Your task to perform on an android device: open app "ColorNote Notepad Notes" (install if not already installed) and go to login screen Image 0: 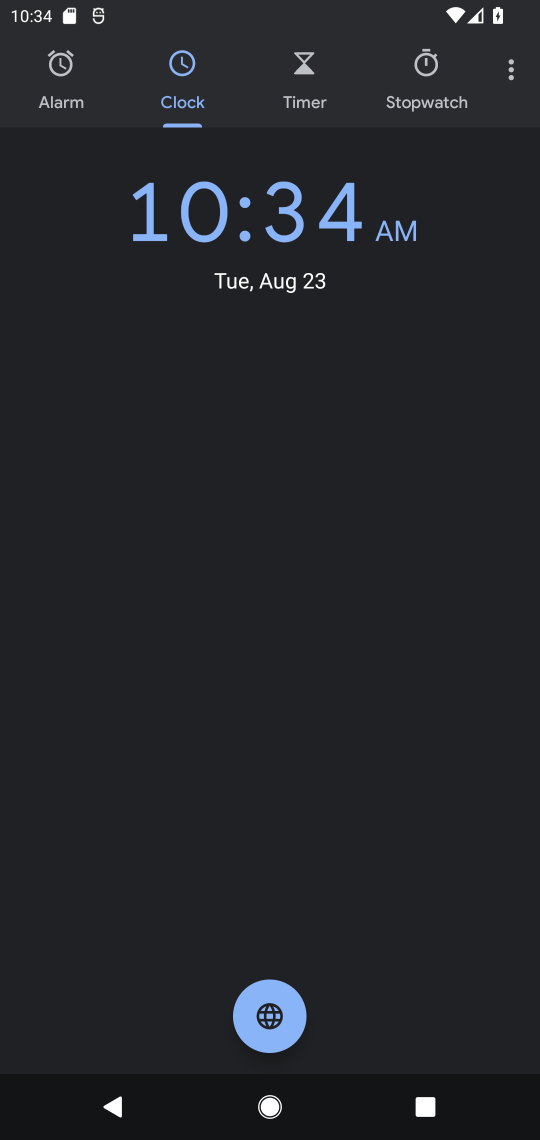
Step 0: press home button
Your task to perform on an android device: open app "ColorNote Notepad Notes" (install if not already installed) and go to login screen Image 1: 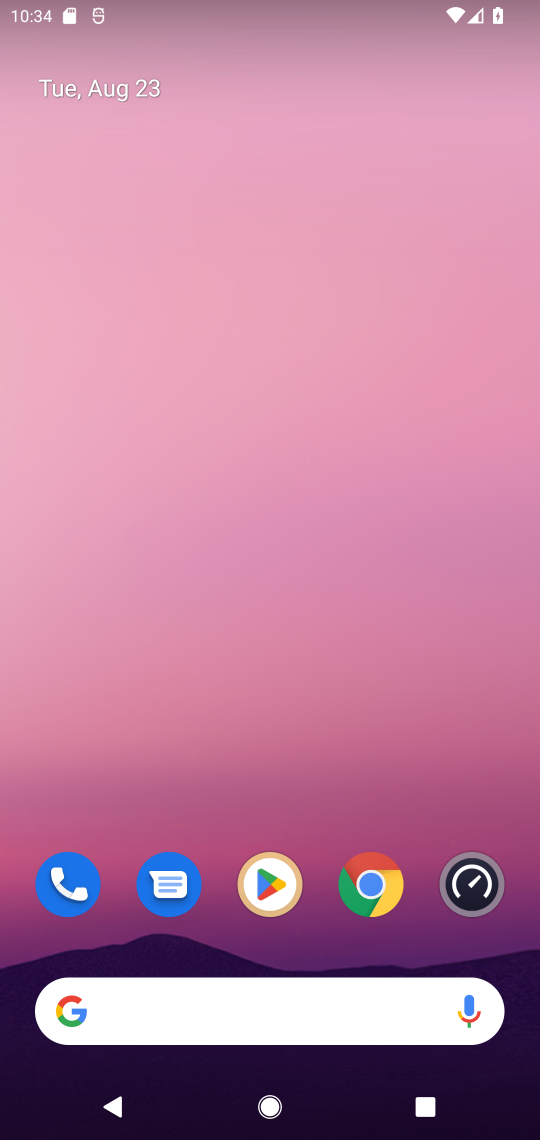
Step 1: click (274, 887)
Your task to perform on an android device: open app "ColorNote Notepad Notes" (install if not already installed) and go to login screen Image 2: 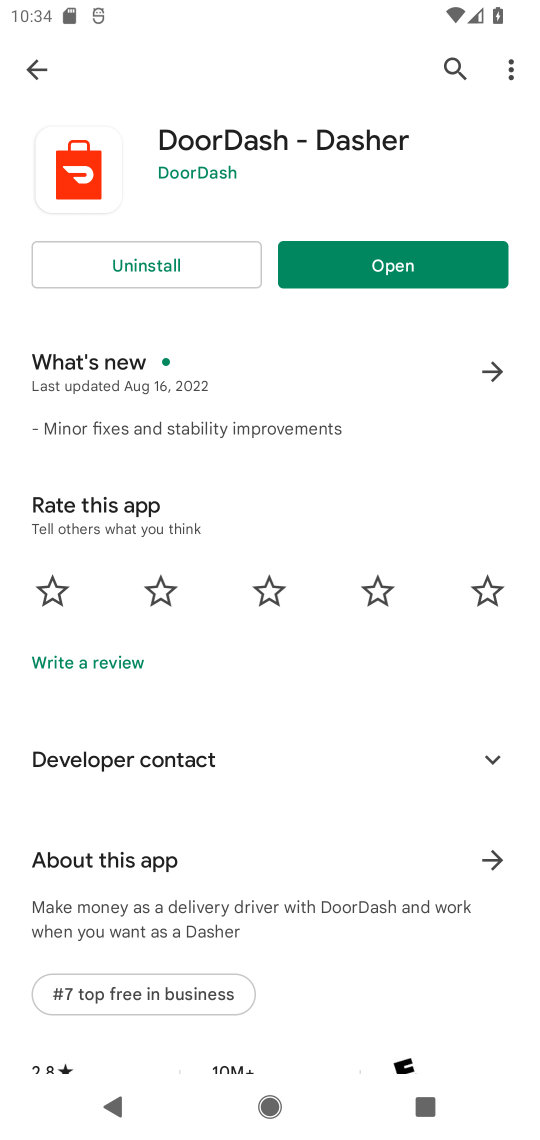
Step 2: click (447, 67)
Your task to perform on an android device: open app "ColorNote Notepad Notes" (install if not already installed) and go to login screen Image 3: 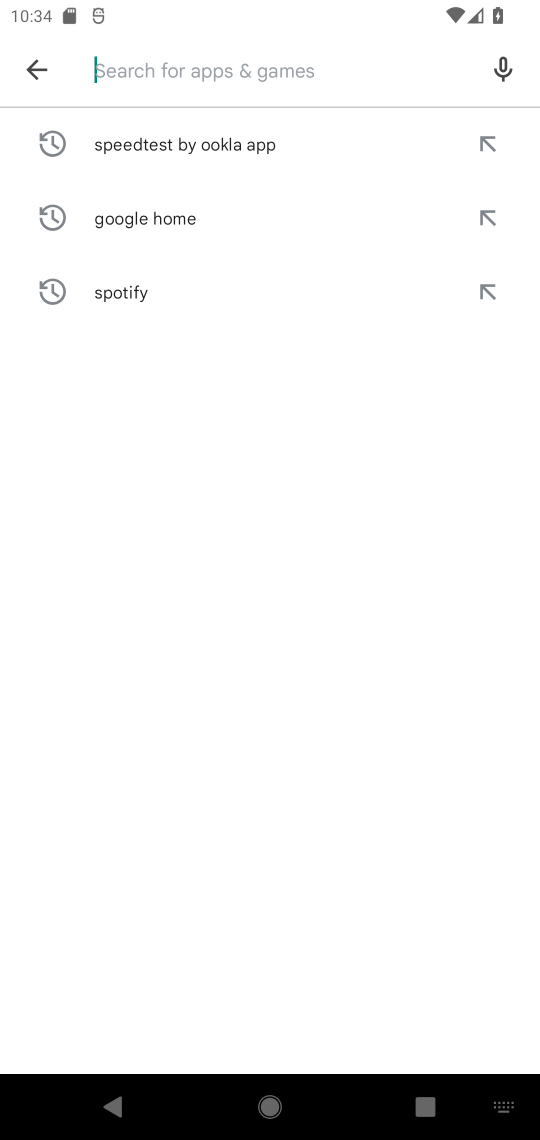
Step 3: type "ColorNote Notepad Notes"
Your task to perform on an android device: open app "ColorNote Notepad Notes" (install if not already installed) and go to login screen Image 4: 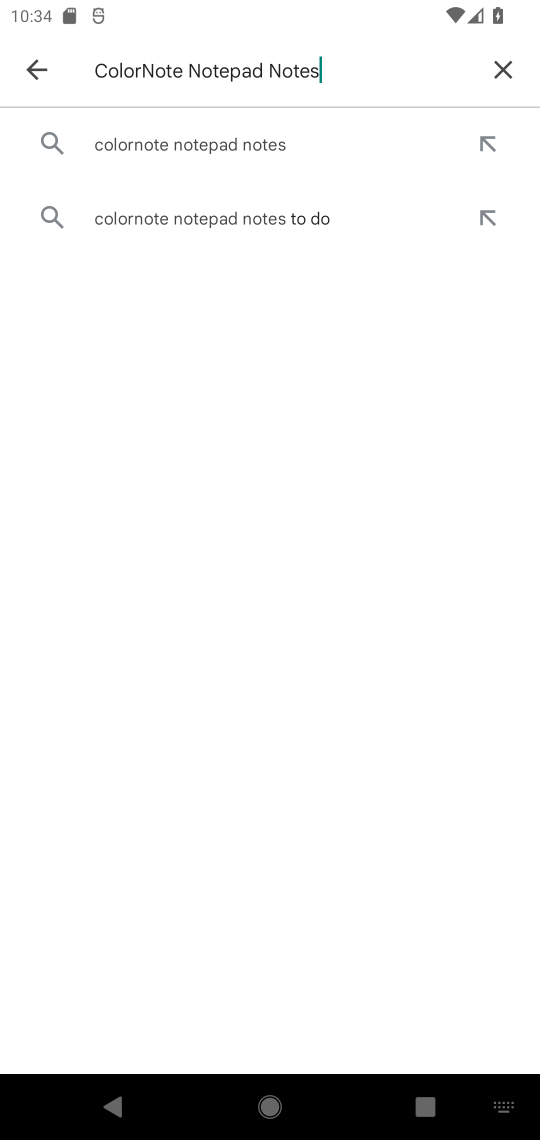
Step 4: click (141, 144)
Your task to perform on an android device: open app "ColorNote Notepad Notes" (install if not already installed) and go to login screen Image 5: 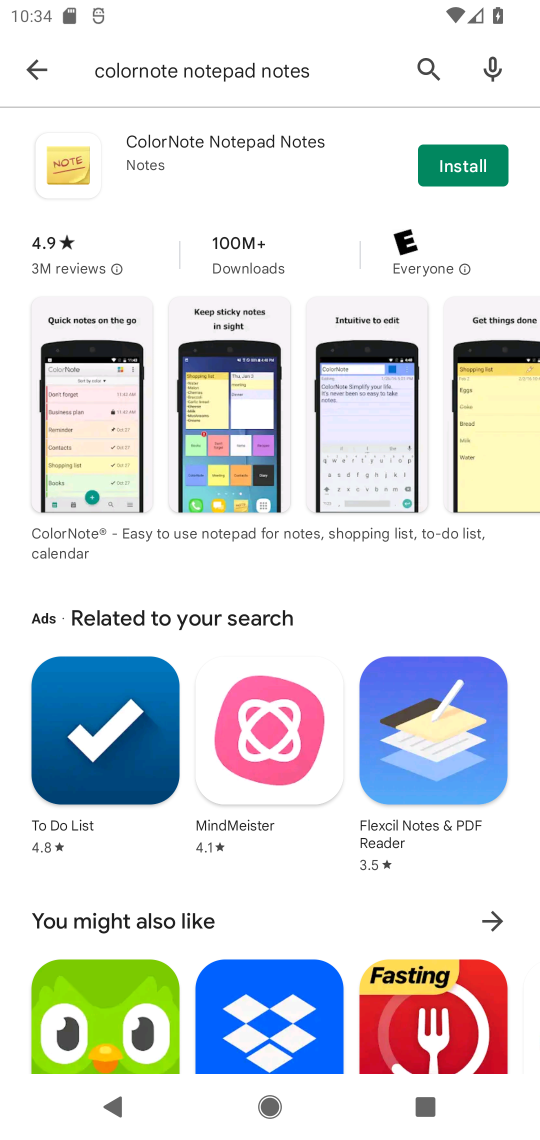
Step 5: click (456, 161)
Your task to perform on an android device: open app "ColorNote Notepad Notes" (install if not already installed) and go to login screen Image 6: 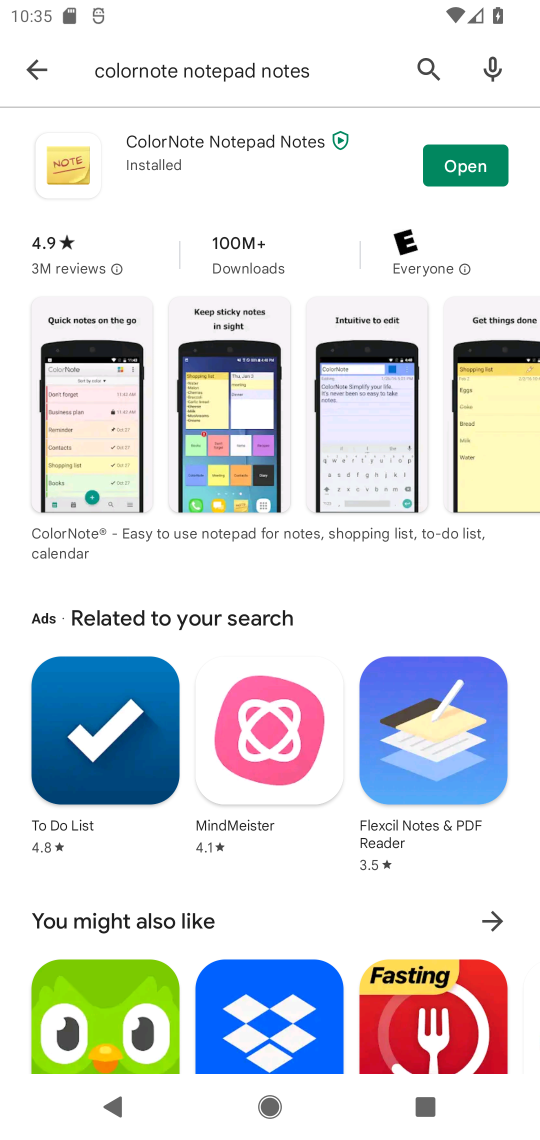
Step 6: click (461, 166)
Your task to perform on an android device: open app "ColorNote Notepad Notes" (install if not already installed) and go to login screen Image 7: 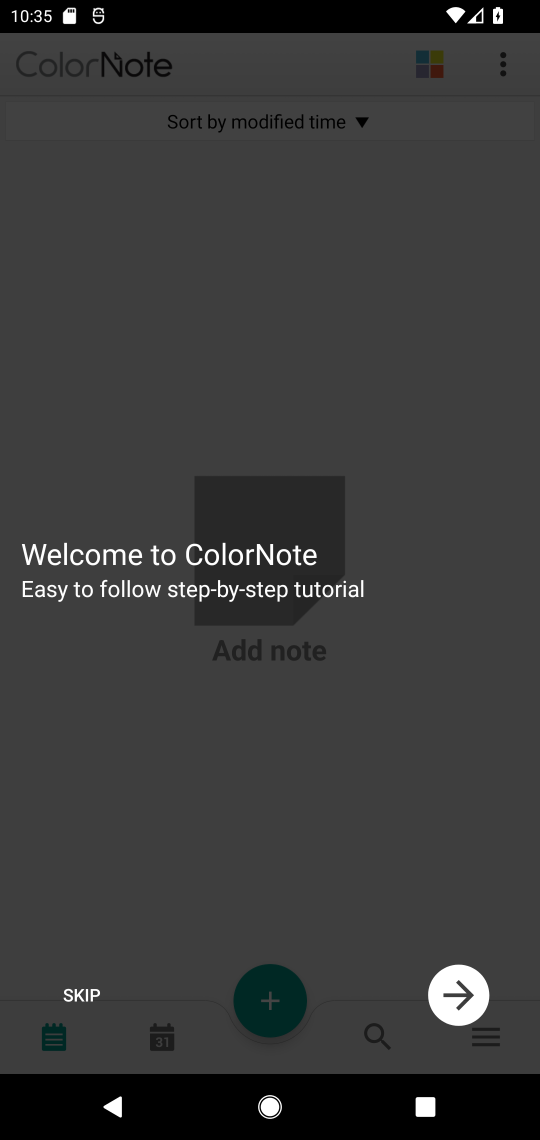
Step 7: click (462, 986)
Your task to perform on an android device: open app "ColorNote Notepad Notes" (install if not already installed) and go to login screen Image 8: 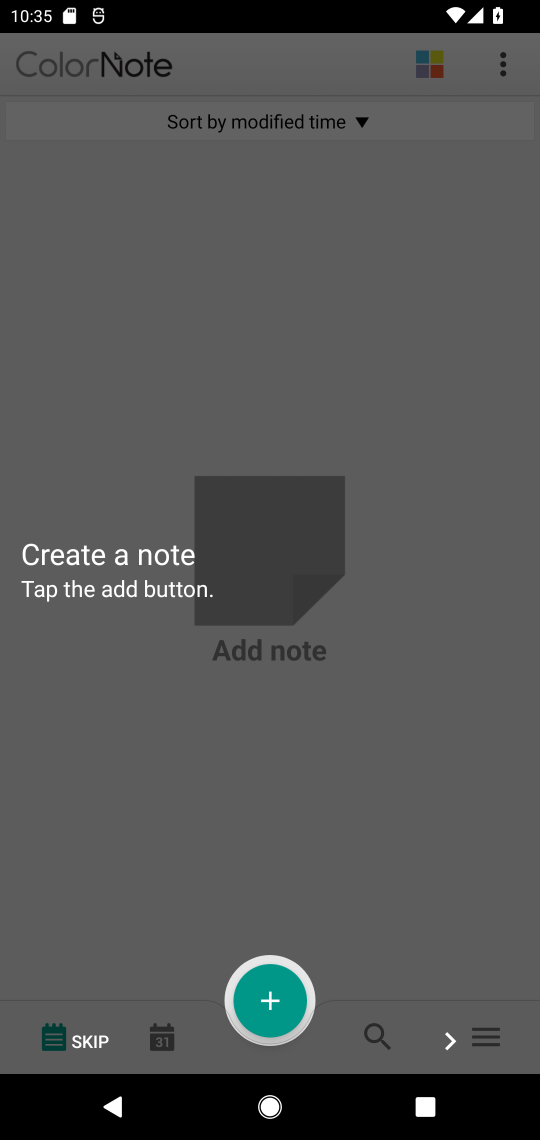
Step 8: click (93, 1042)
Your task to perform on an android device: open app "ColorNote Notepad Notes" (install if not already installed) and go to login screen Image 9: 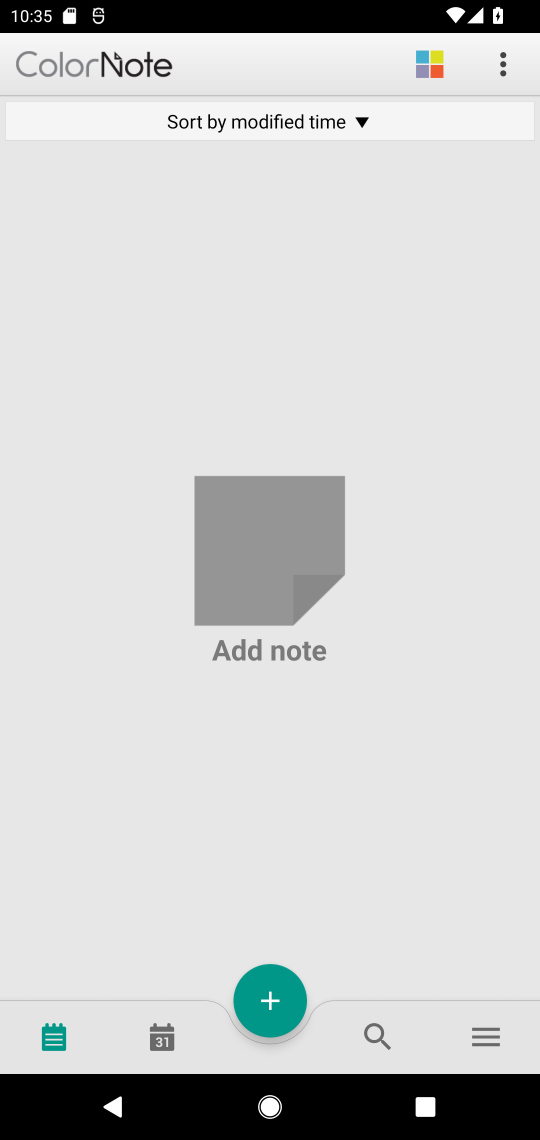
Step 9: click (482, 1037)
Your task to perform on an android device: open app "ColorNote Notepad Notes" (install if not already installed) and go to login screen Image 10: 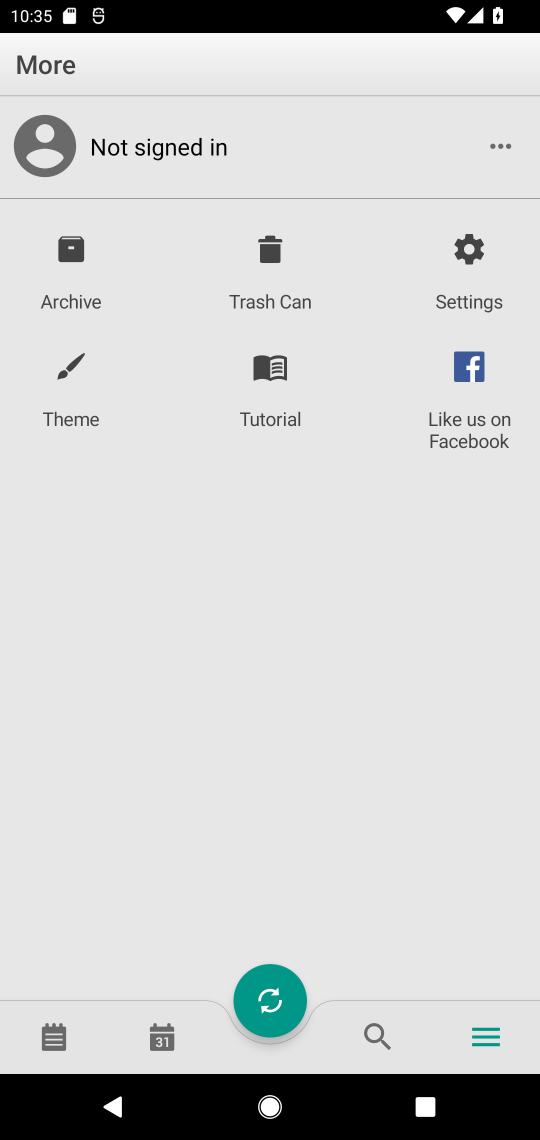
Step 10: click (123, 143)
Your task to perform on an android device: open app "ColorNote Notepad Notes" (install if not already installed) and go to login screen Image 11: 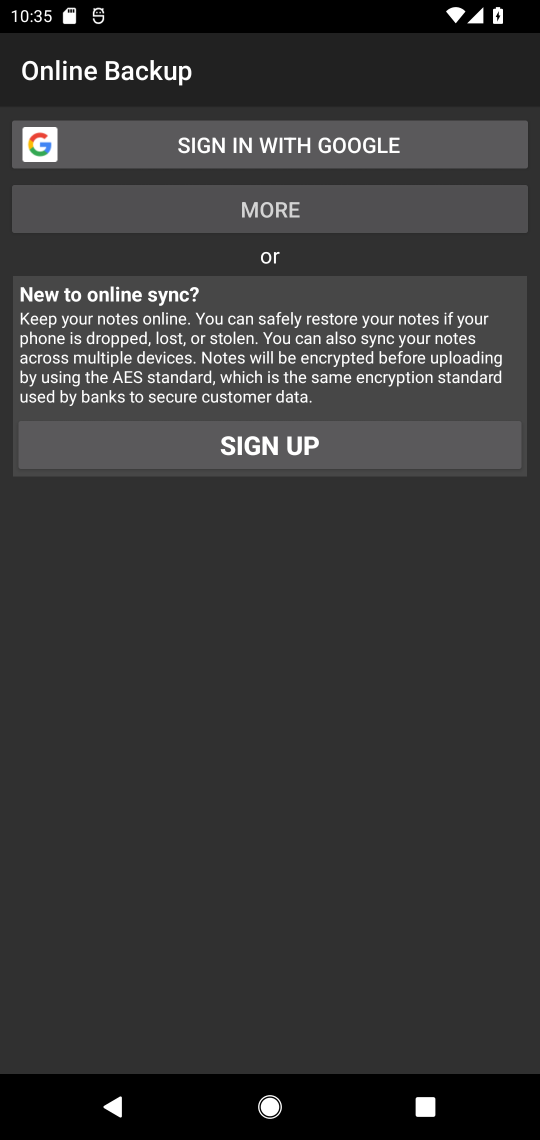
Step 11: click (268, 208)
Your task to perform on an android device: open app "ColorNote Notepad Notes" (install if not already installed) and go to login screen Image 12: 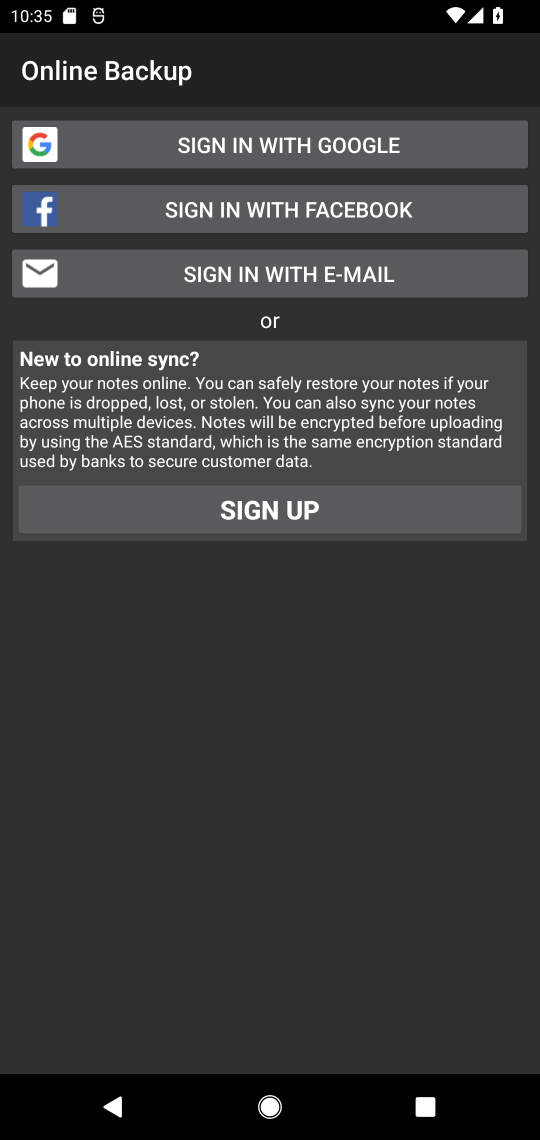
Step 12: click (273, 277)
Your task to perform on an android device: open app "ColorNote Notepad Notes" (install if not already installed) and go to login screen Image 13: 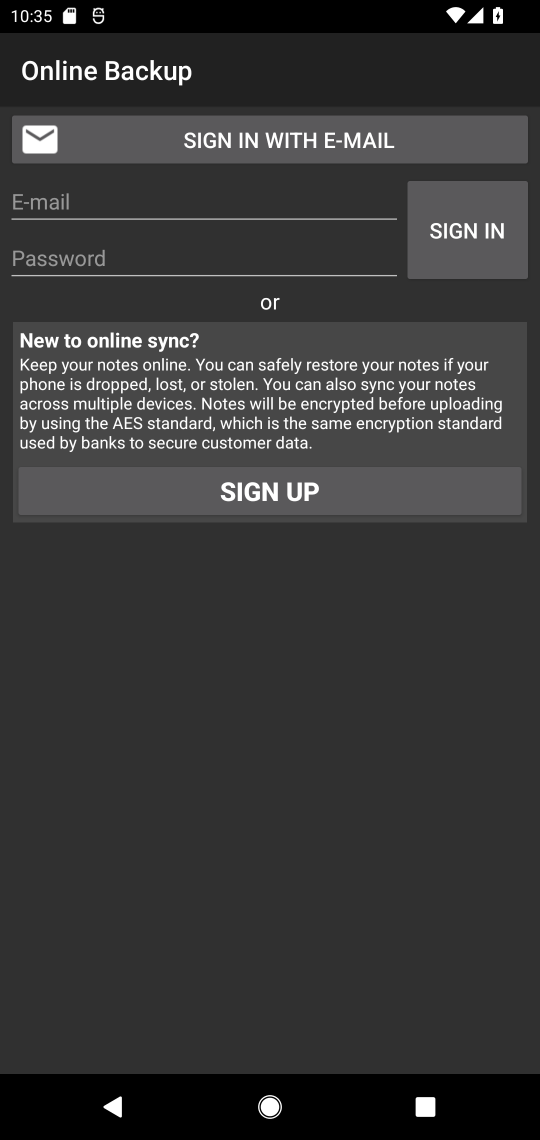
Step 13: task complete